Your task to perform on an android device: remove spam from my inbox in the gmail app Image 0: 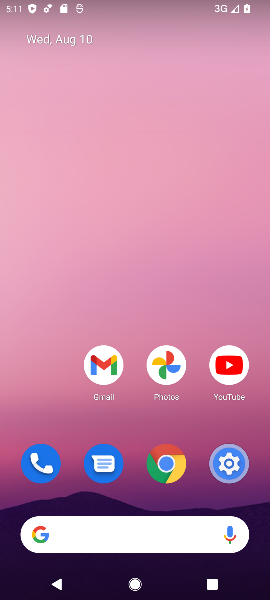
Step 0: click (101, 367)
Your task to perform on an android device: remove spam from my inbox in the gmail app Image 1: 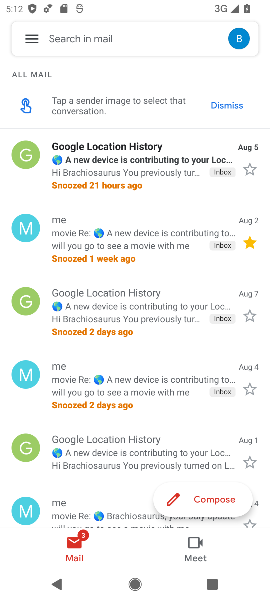
Step 1: click (24, 38)
Your task to perform on an android device: remove spam from my inbox in the gmail app Image 2: 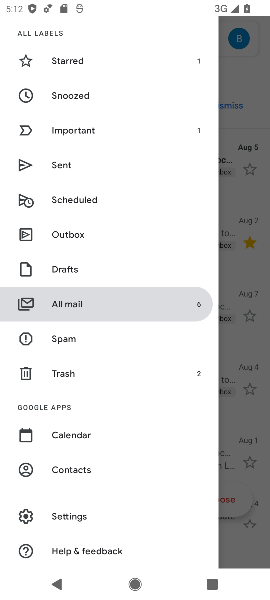
Step 2: click (68, 336)
Your task to perform on an android device: remove spam from my inbox in the gmail app Image 3: 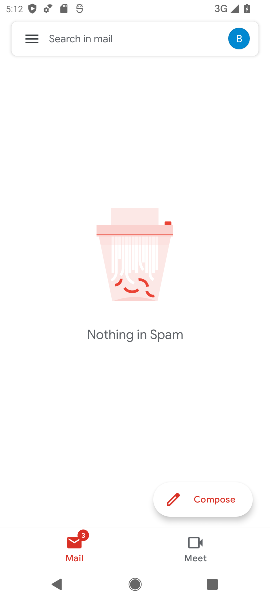
Step 3: task complete